Your task to perform on an android device: Go to Maps Image 0: 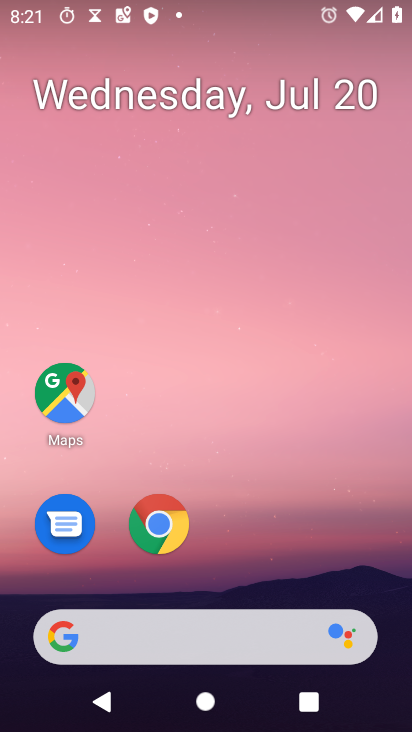
Step 0: click (77, 382)
Your task to perform on an android device: Go to Maps Image 1: 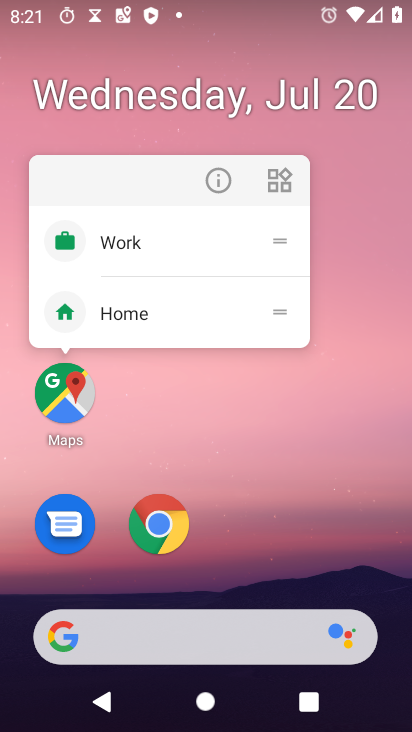
Step 1: click (53, 399)
Your task to perform on an android device: Go to Maps Image 2: 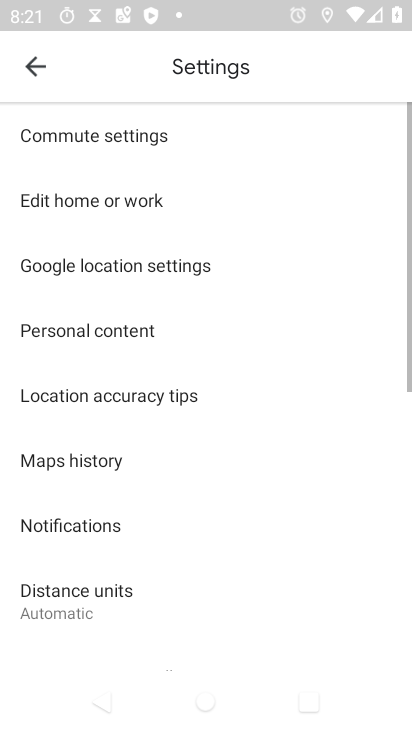
Step 2: click (37, 66)
Your task to perform on an android device: Go to Maps Image 3: 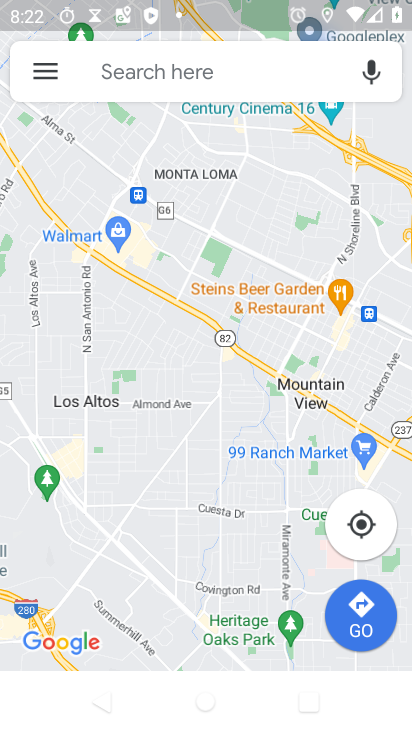
Step 3: task complete